Your task to perform on an android device: Show me the best rated 42 inch TV on Walmart. Image 0: 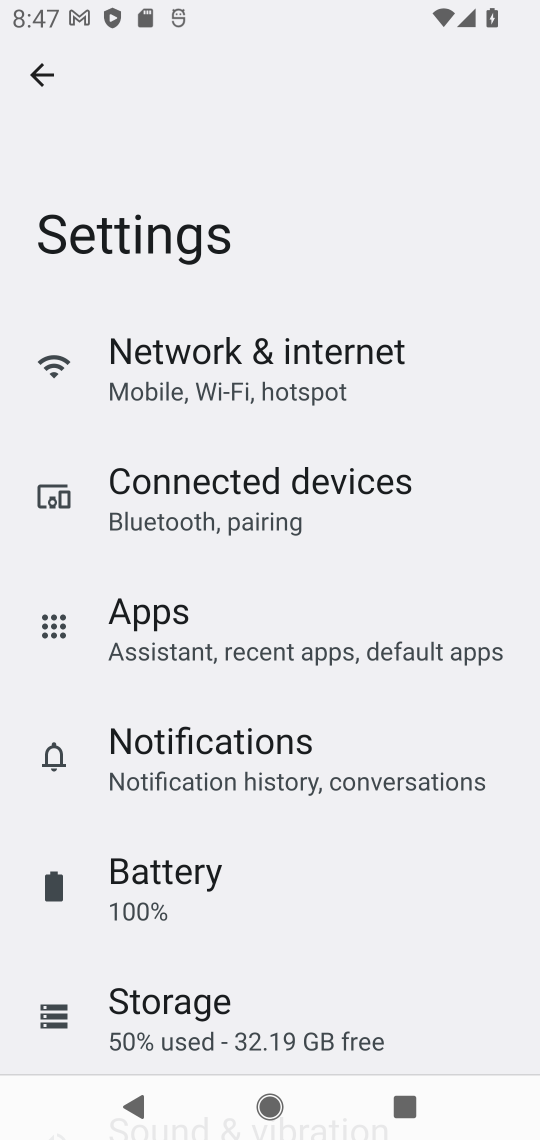
Step 0: press home button
Your task to perform on an android device: Show me the best rated 42 inch TV on Walmart. Image 1: 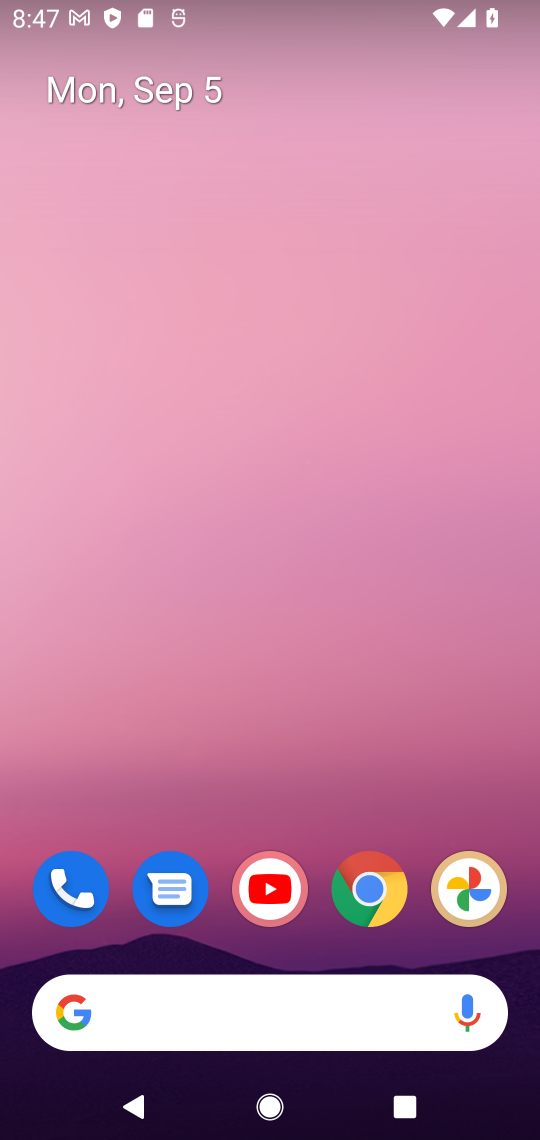
Step 1: click (269, 1022)
Your task to perform on an android device: Show me the best rated 42 inch TV on Walmart. Image 2: 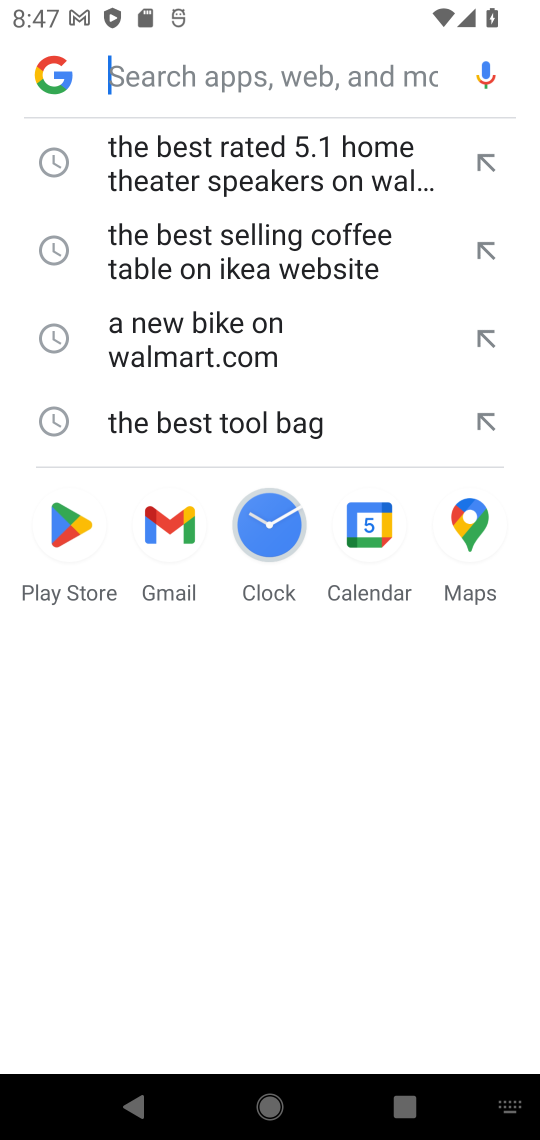
Step 2: type " the best rated 42 inch TV on Walmart"
Your task to perform on an android device: Show me the best rated 42 inch TV on Walmart. Image 3: 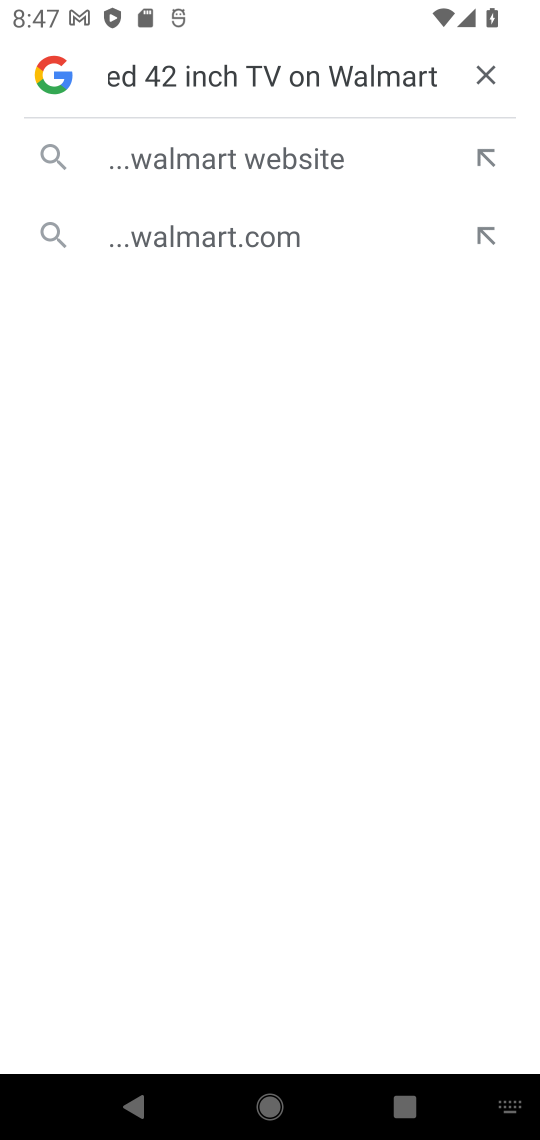
Step 3: click (300, 161)
Your task to perform on an android device: Show me the best rated 42 inch TV on Walmart. Image 4: 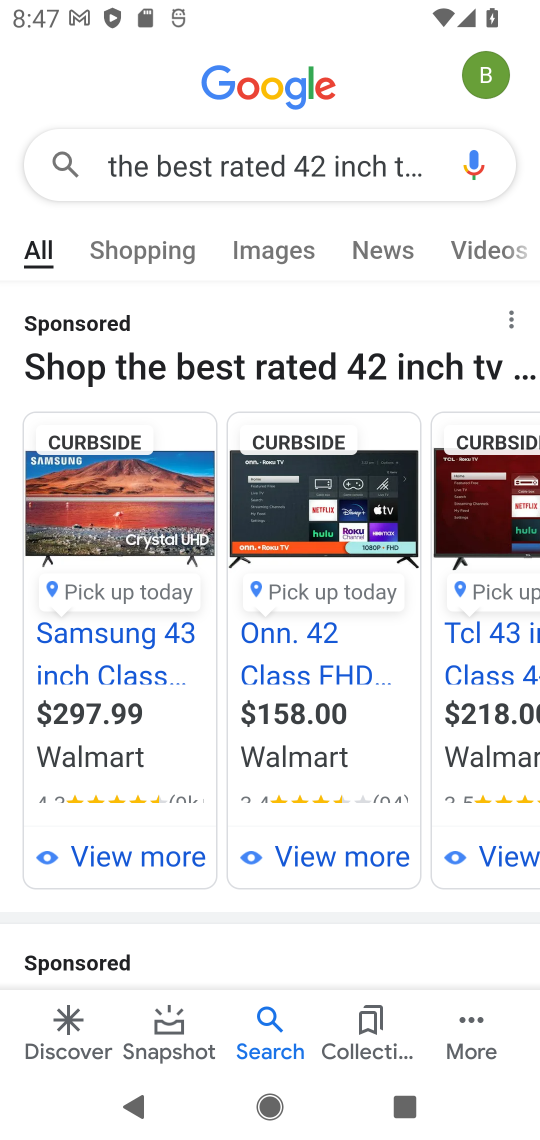
Step 4: task complete